Your task to perform on an android device: turn on notifications settings in the gmail app Image 0: 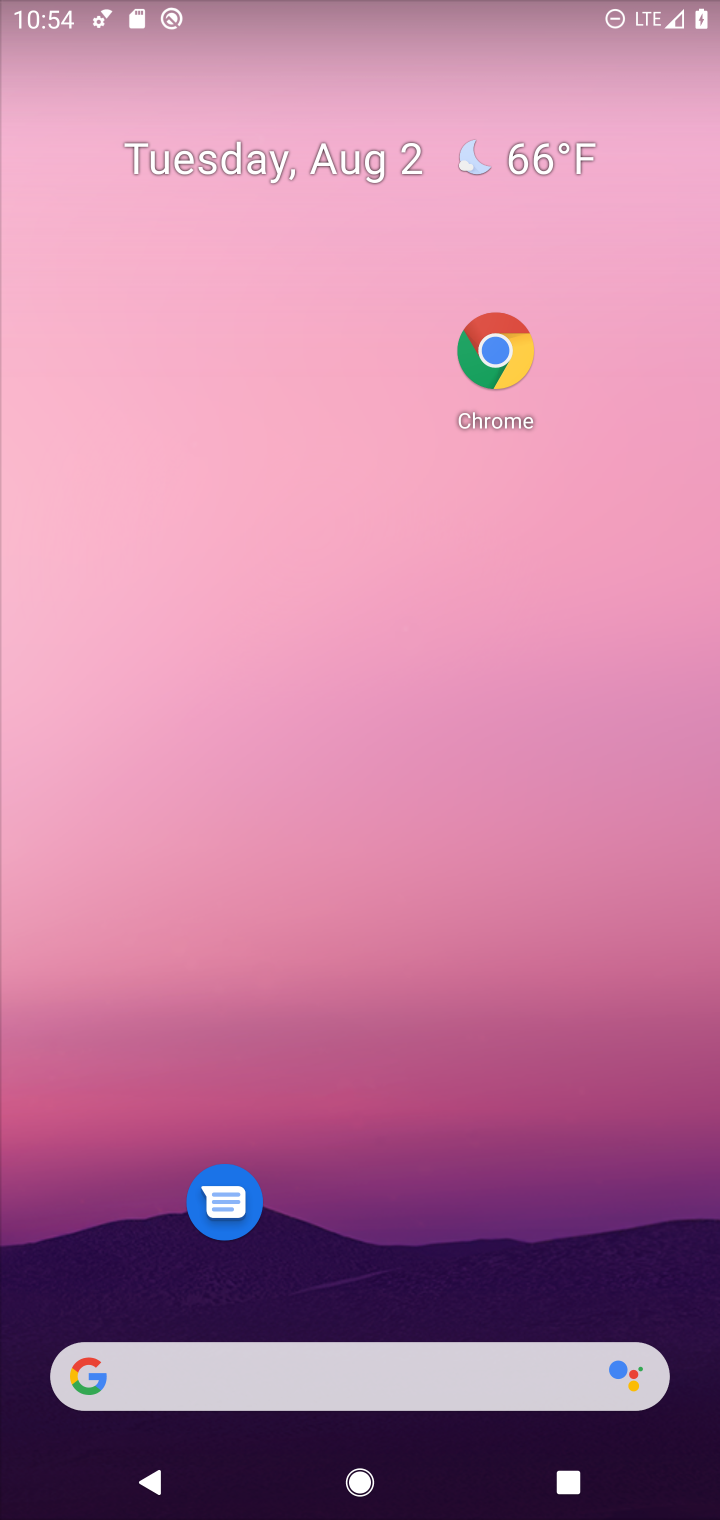
Step 0: drag from (383, 1145) to (322, 2)
Your task to perform on an android device: turn on notifications settings in the gmail app Image 1: 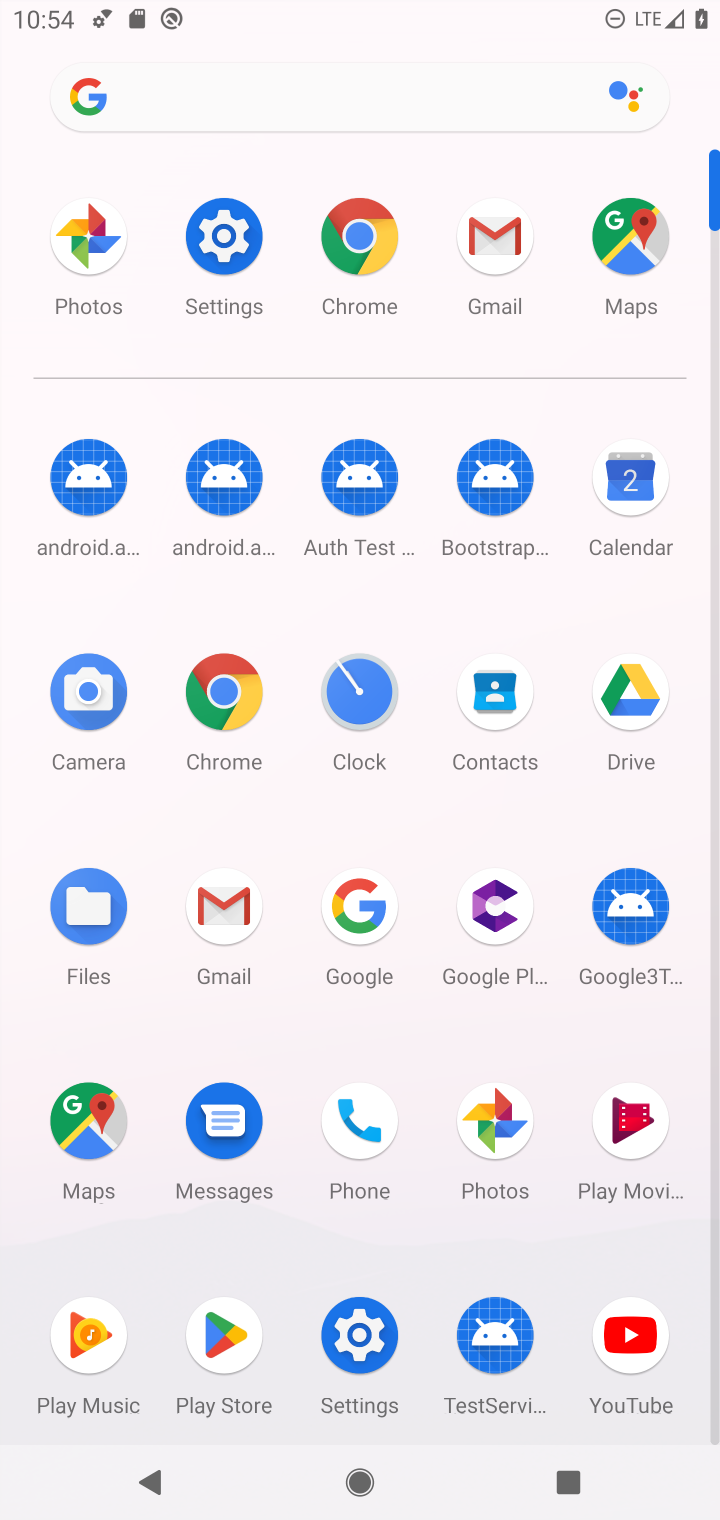
Step 1: click (481, 257)
Your task to perform on an android device: turn on notifications settings in the gmail app Image 2: 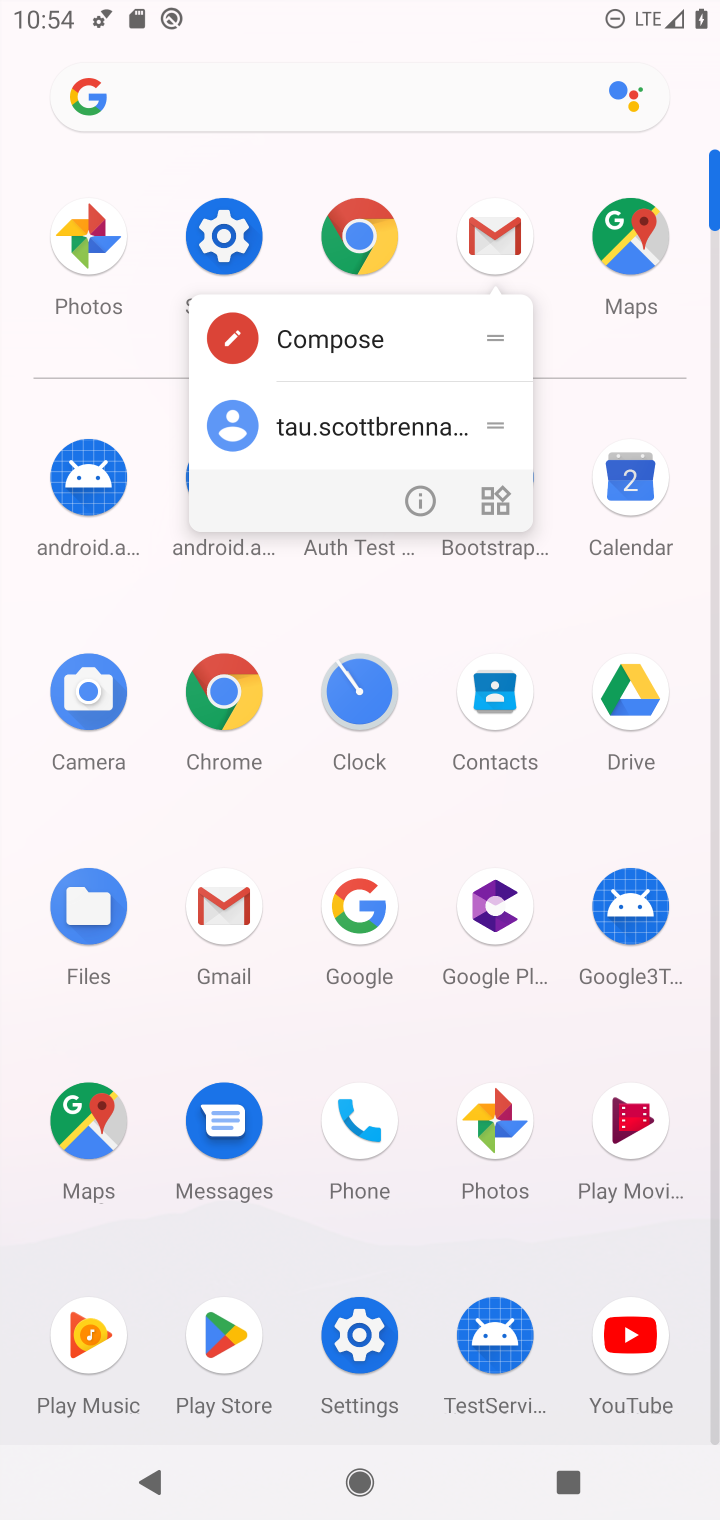
Step 2: click (508, 243)
Your task to perform on an android device: turn on notifications settings in the gmail app Image 3: 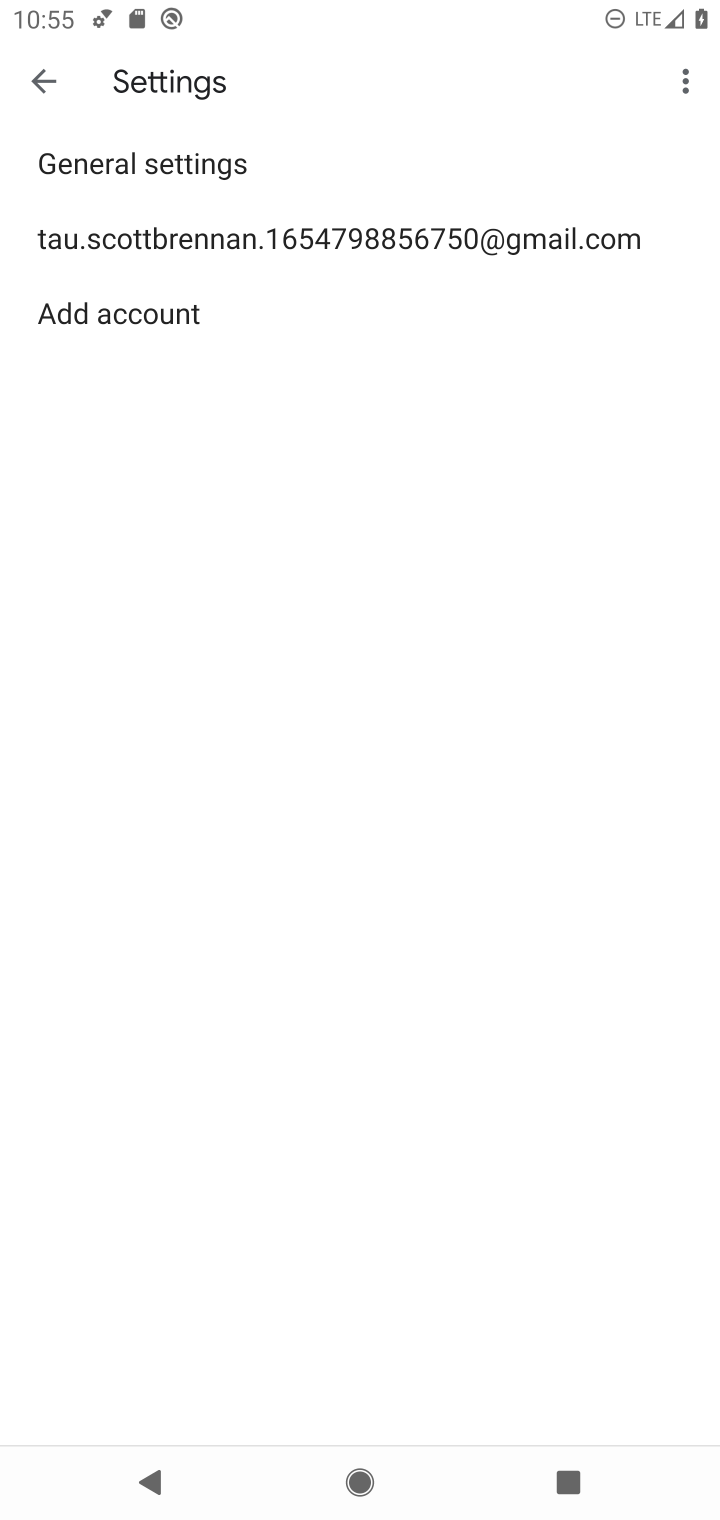
Step 3: click (72, 175)
Your task to perform on an android device: turn on notifications settings in the gmail app Image 4: 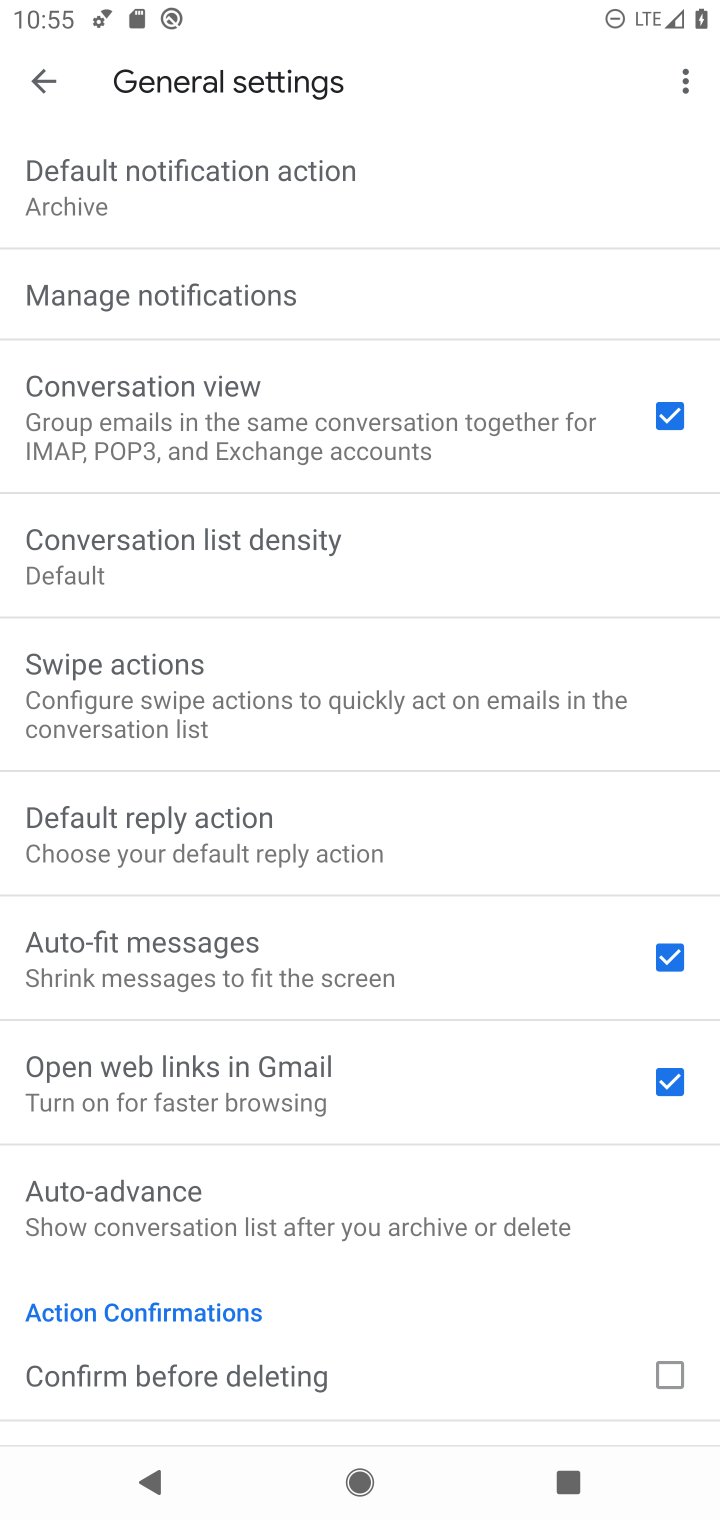
Step 4: click (177, 300)
Your task to perform on an android device: turn on notifications settings in the gmail app Image 5: 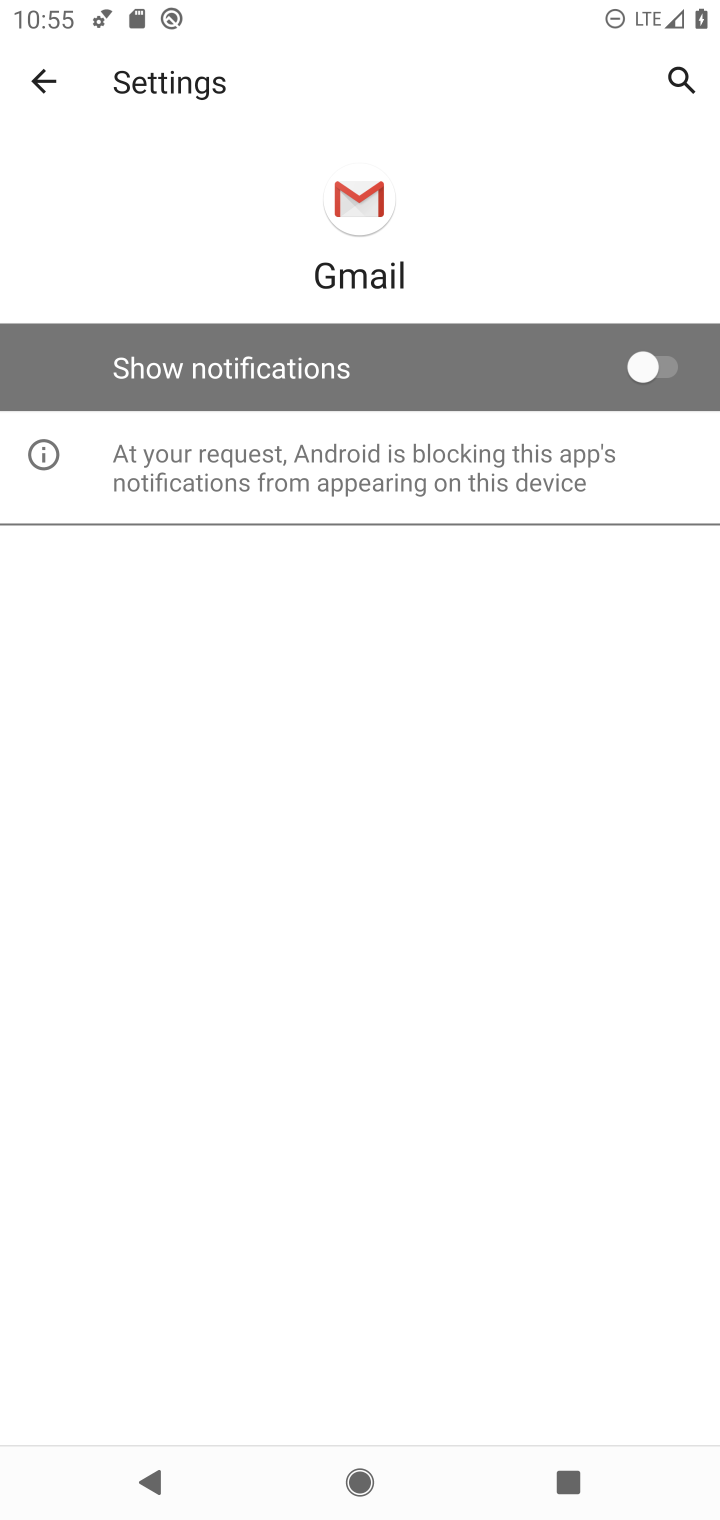
Step 5: click (652, 363)
Your task to perform on an android device: turn on notifications settings in the gmail app Image 6: 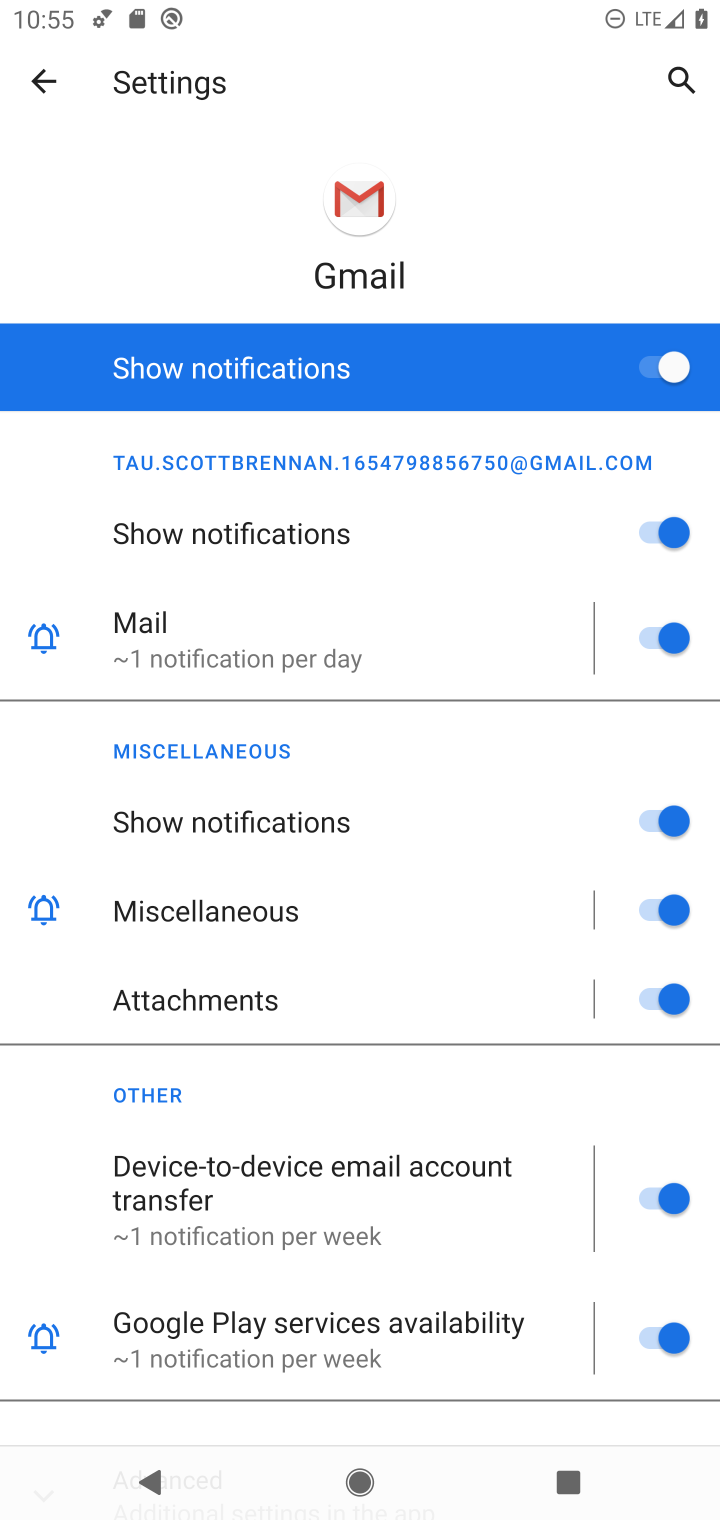
Step 6: task complete